Your task to perform on an android device: add a contact Image 0: 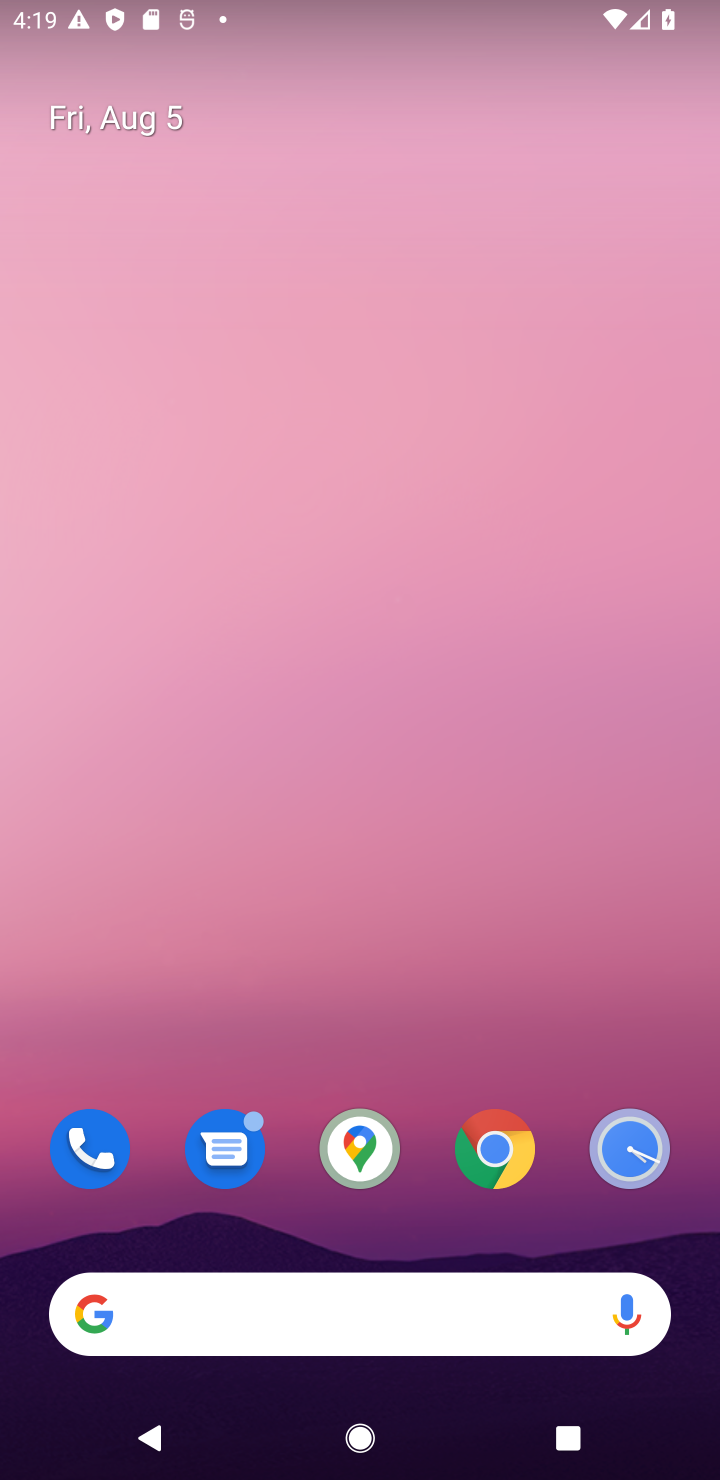
Step 0: drag from (432, 1003) to (536, 27)
Your task to perform on an android device: add a contact Image 1: 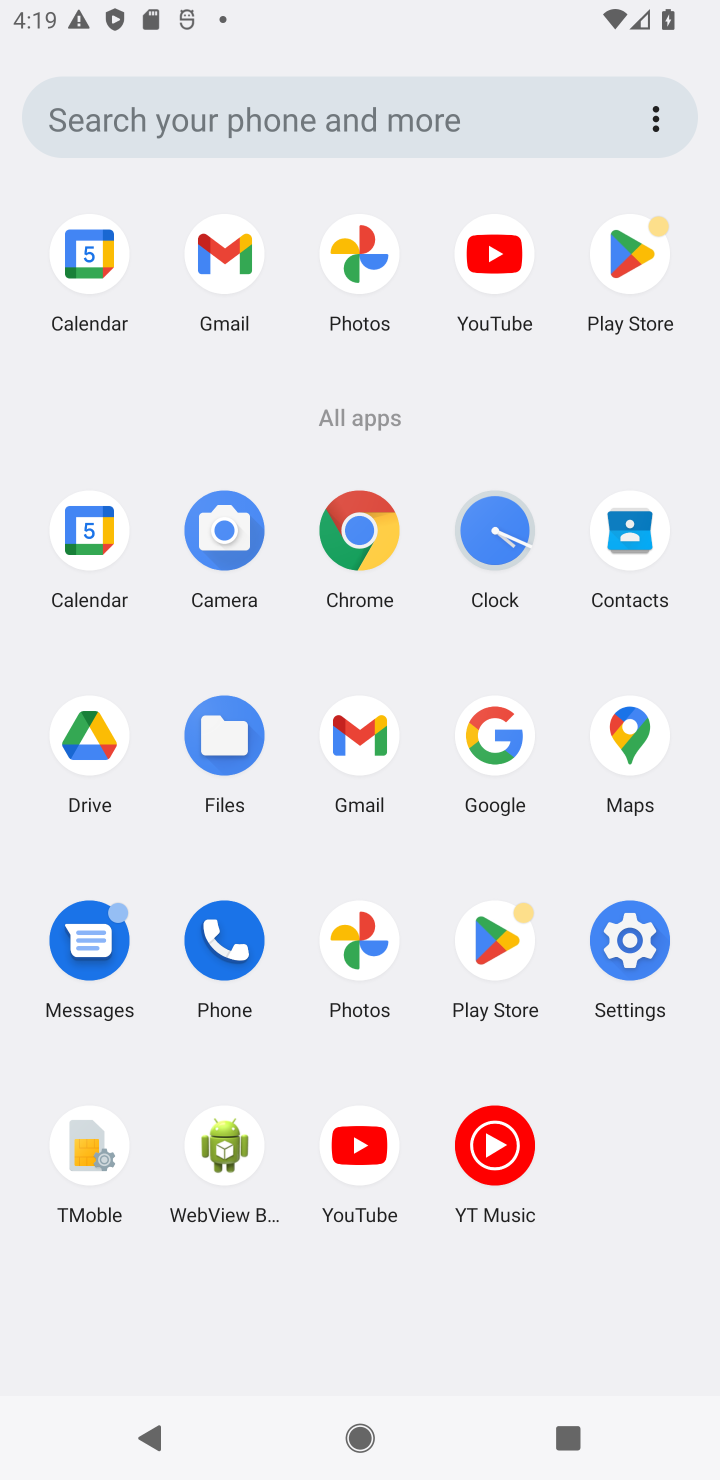
Step 1: click (639, 529)
Your task to perform on an android device: add a contact Image 2: 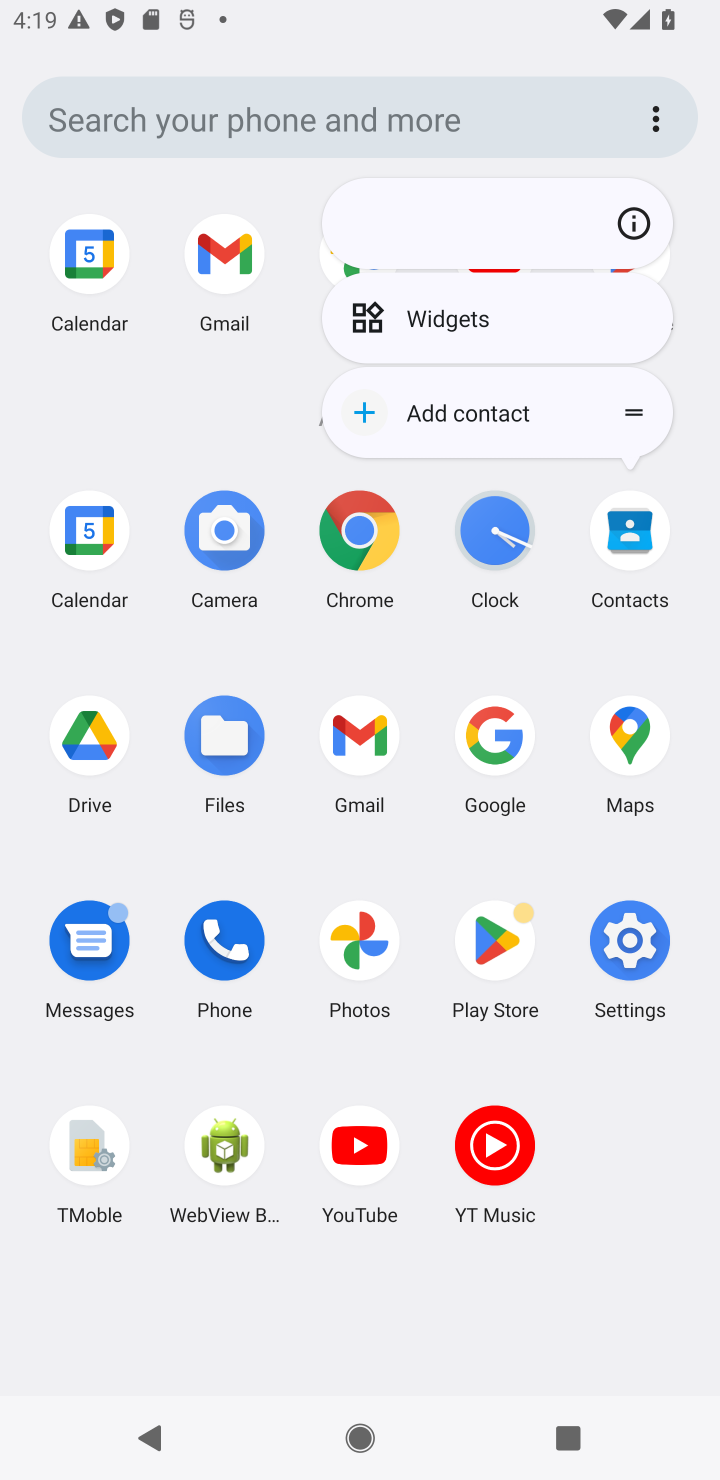
Step 2: click (631, 563)
Your task to perform on an android device: add a contact Image 3: 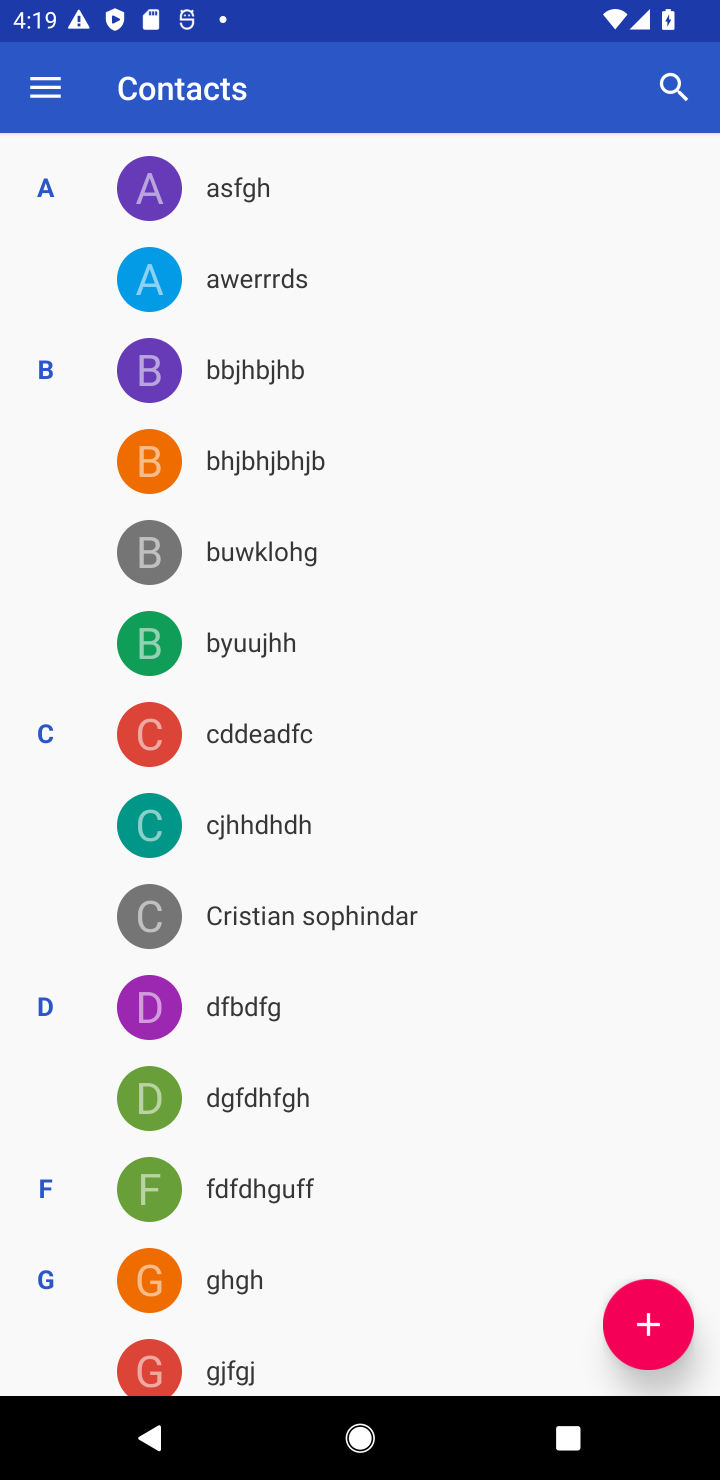
Step 3: click (645, 1323)
Your task to perform on an android device: add a contact Image 4: 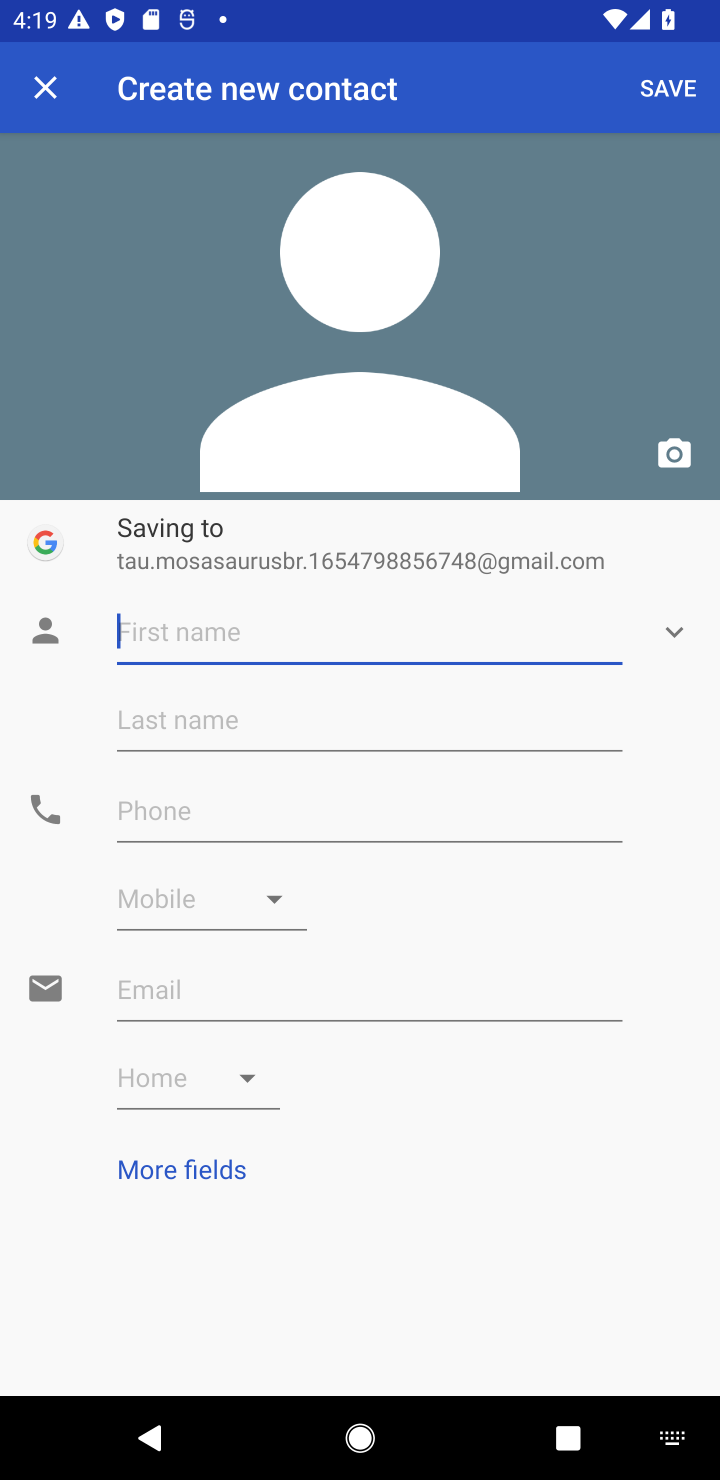
Step 4: click (192, 639)
Your task to perform on an android device: add a contact Image 5: 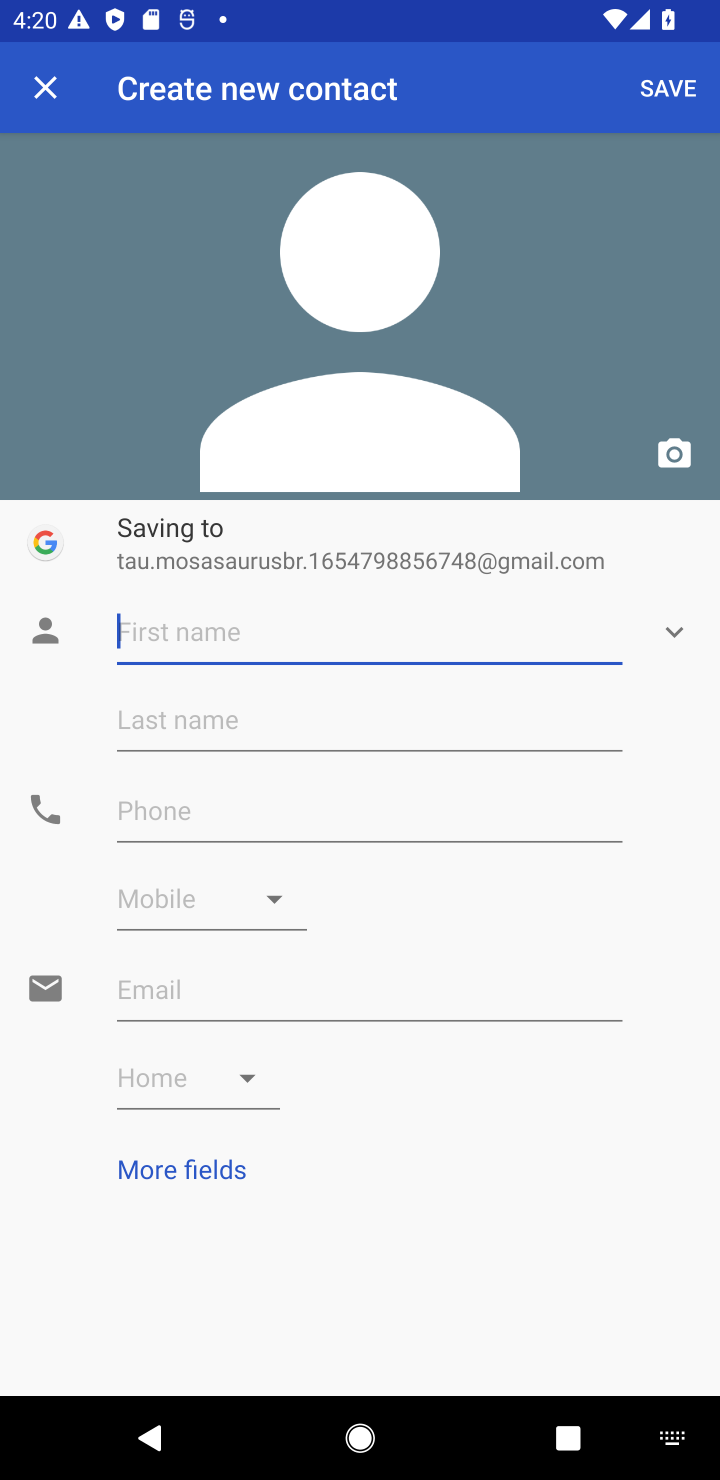
Step 5: type "fgg "
Your task to perform on an android device: add a contact Image 6: 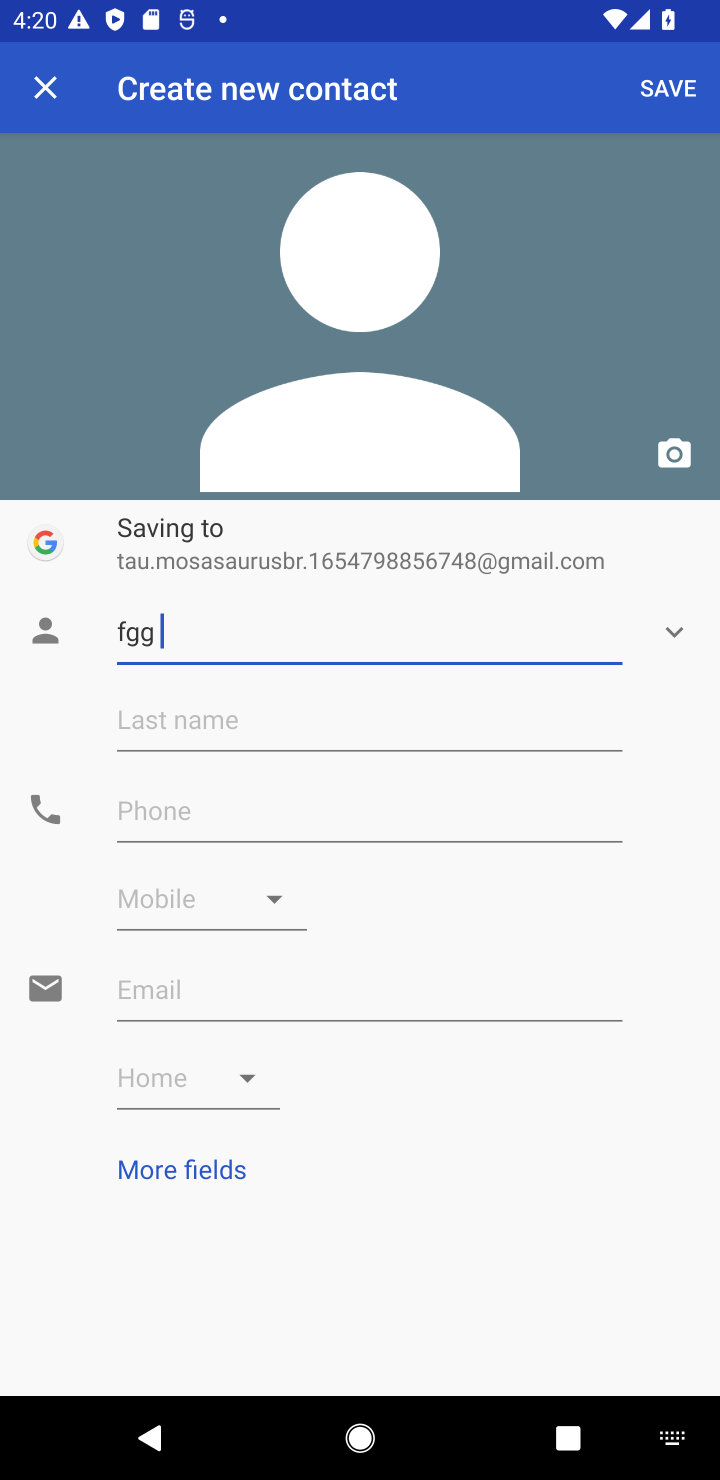
Step 6: click (224, 817)
Your task to perform on an android device: add a contact Image 7: 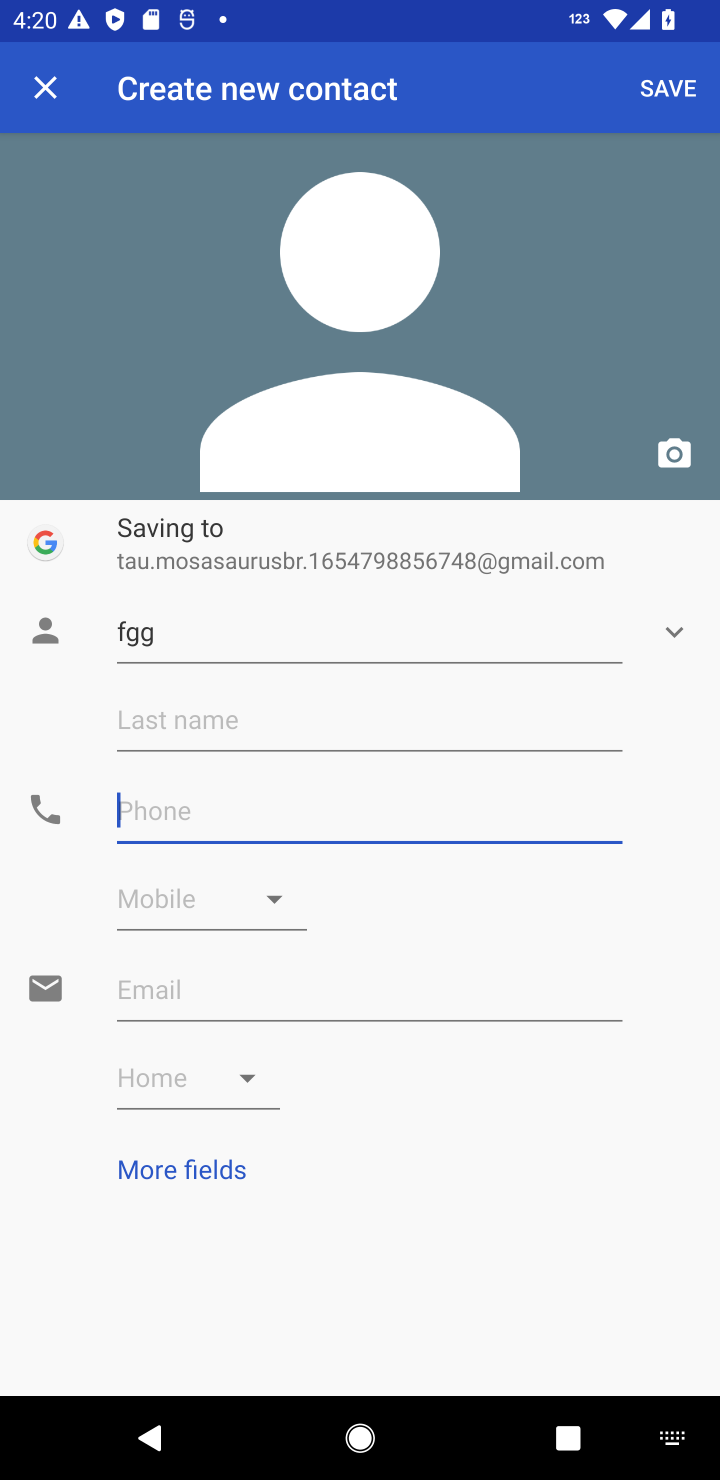
Step 7: type "676676"
Your task to perform on an android device: add a contact Image 8: 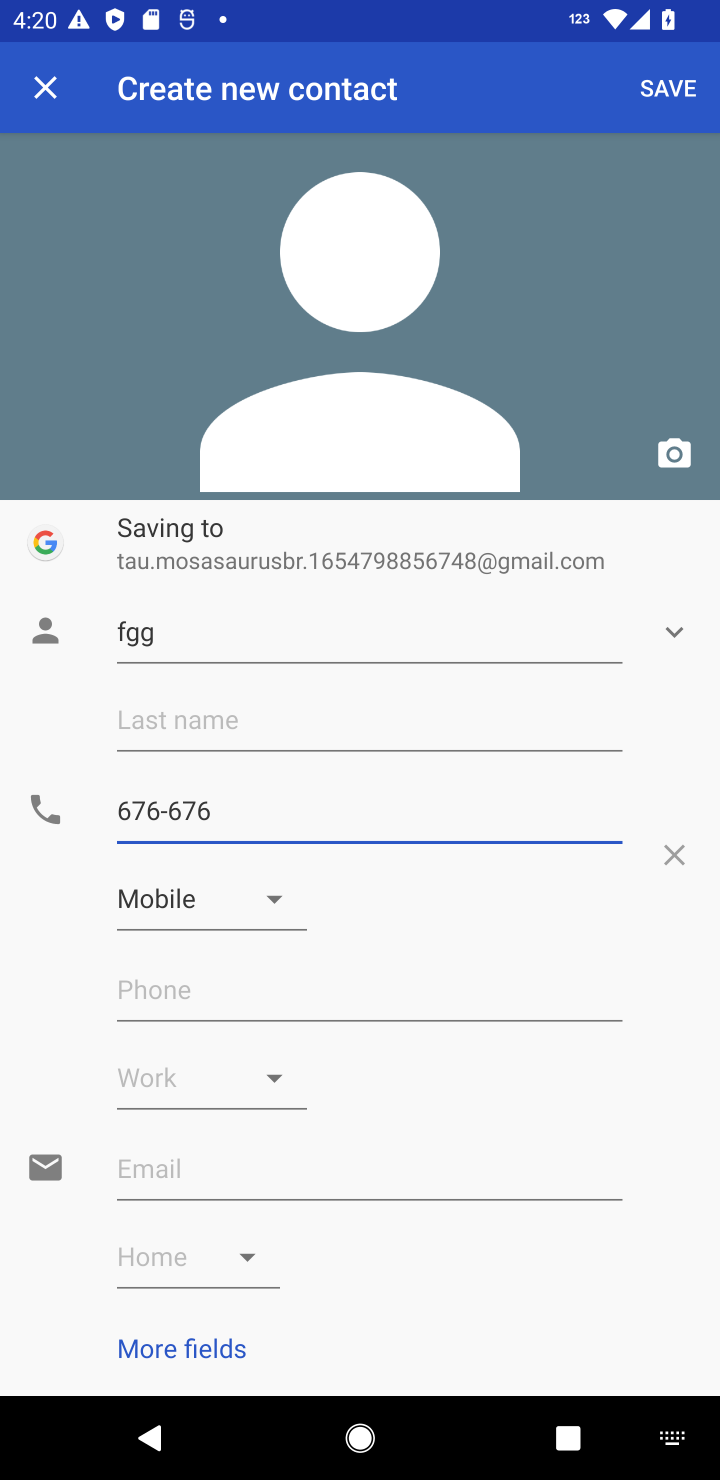
Step 8: click (651, 90)
Your task to perform on an android device: add a contact Image 9: 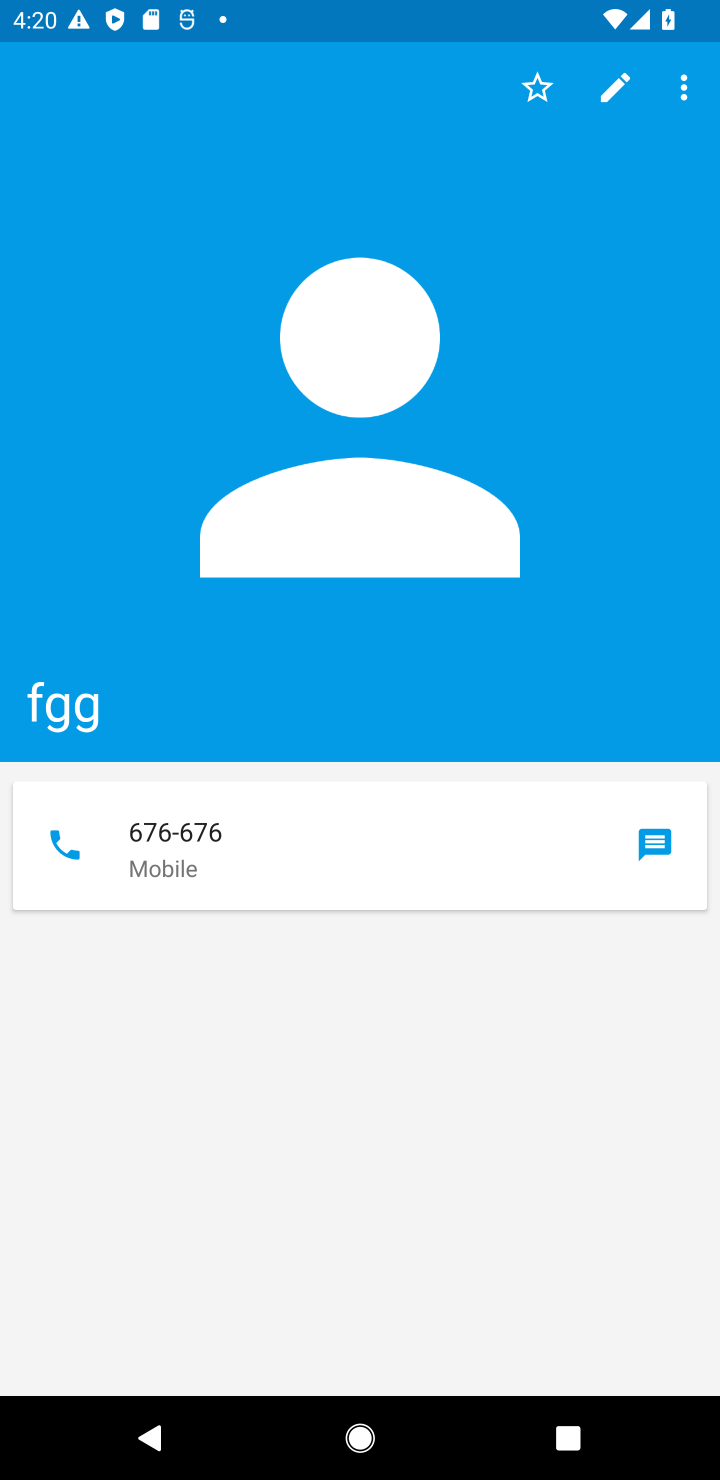
Step 9: task complete